Your task to perform on an android device: Clear the cart on walmart.com. Add "asus rog" to the cart on walmart.com, then select checkout. Image 0: 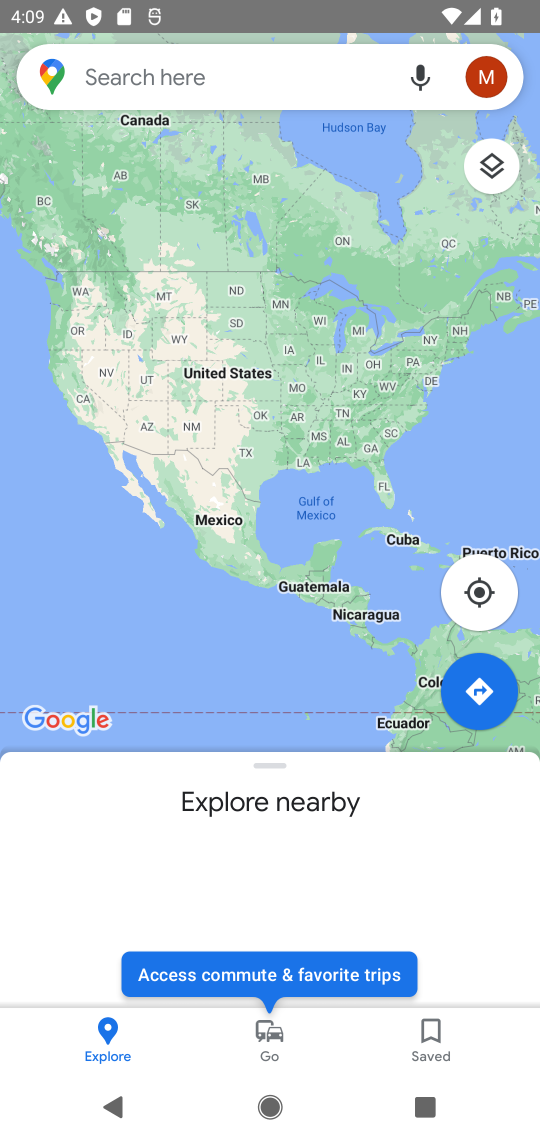
Step 0: press home button
Your task to perform on an android device: Clear the cart on walmart.com. Add "asus rog" to the cart on walmart.com, then select checkout. Image 1: 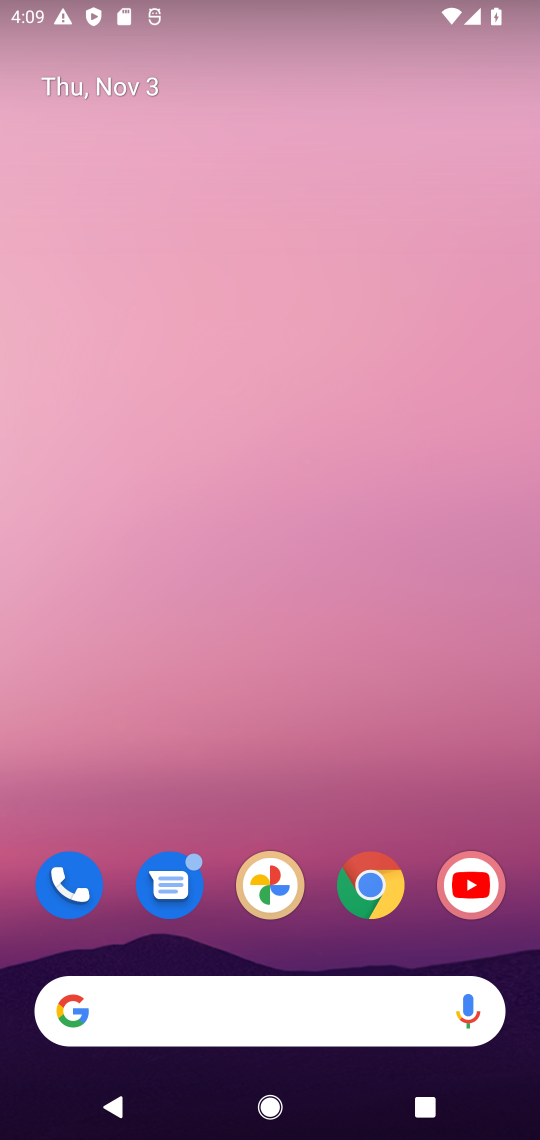
Step 1: click (382, 876)
Your task to perform on an android device: Clear the cart on walmart.com. Add "asus rog" to the cart on walmart.com, then select checkout. Image 2: 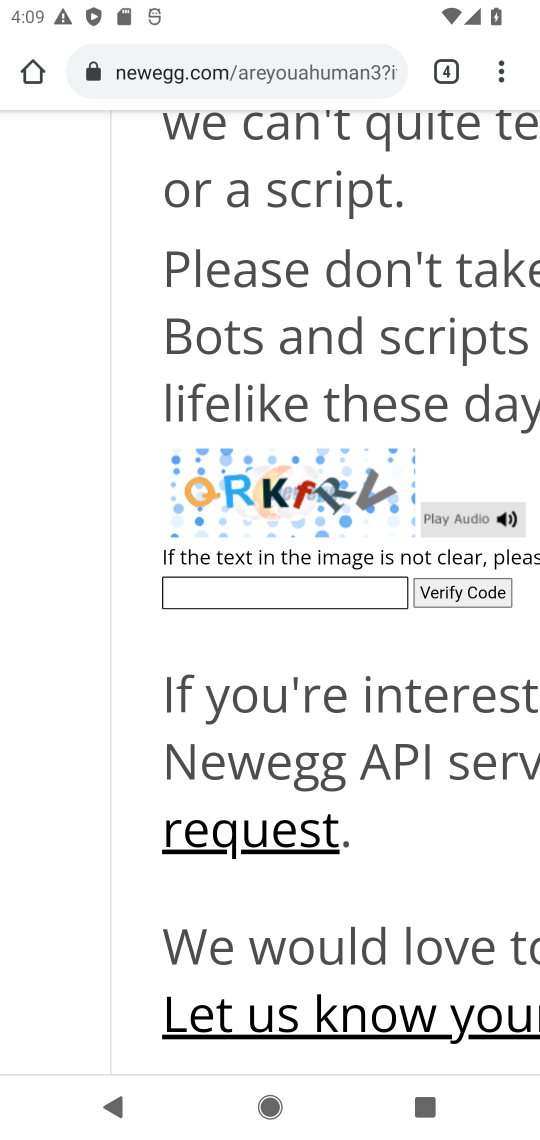
Step 2: click (450, 66)
Your task to perform on an android device: Clear the cart on walmart.com. Add "asus rog" to the cart on walmart.com, then select checkout. Image 3: 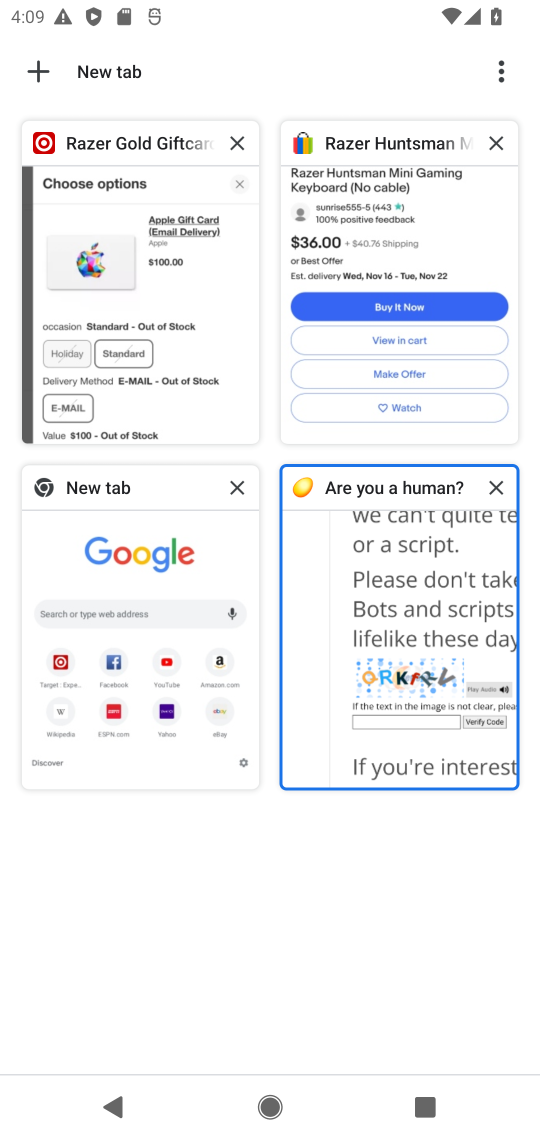
Step 3: click (158, 712)
Your task to perform on an android device: Clear the cart on walmart.com. Add "asus rog" to the cart on walmart.com, then select checkout. Image 4: 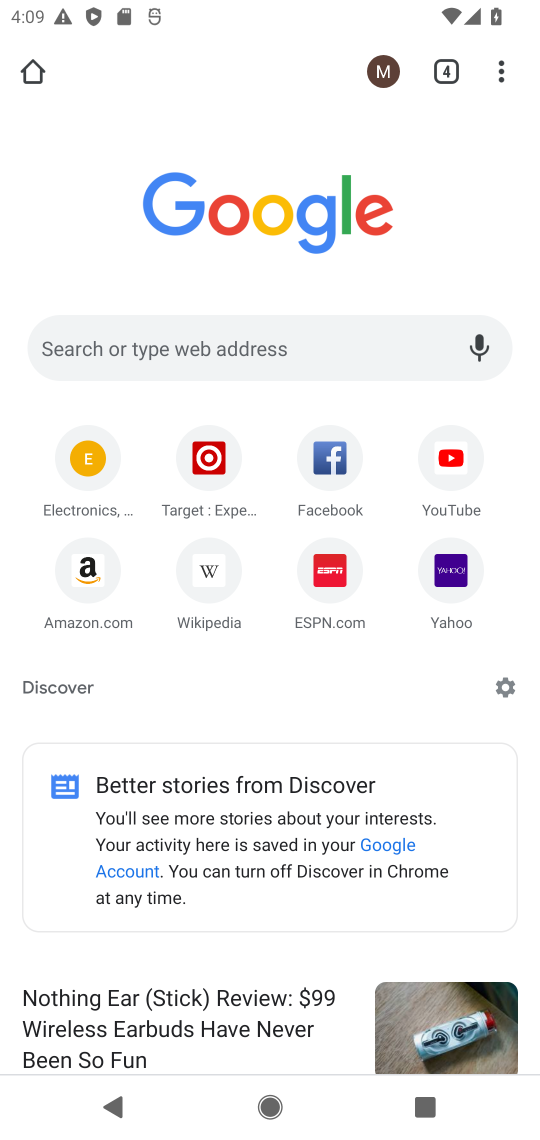
Step 4: click (287, 348)
Your task to perform on an android device: Clear the cart on walmart.com. Add "asus rog" to the cart on walmart.com, then select checkout. Image 5: 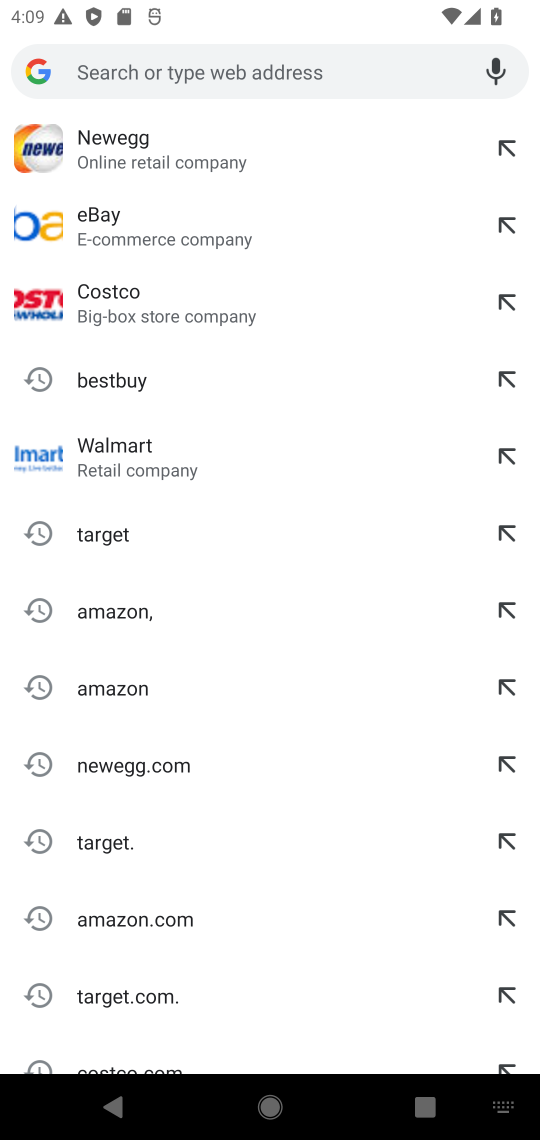
Step 5: type "walmart"
Your task to perform on an android device: Clear the cart on walmart.com. Add "asus rog" to the cart on walmart.com, then select checkout. Image 6: 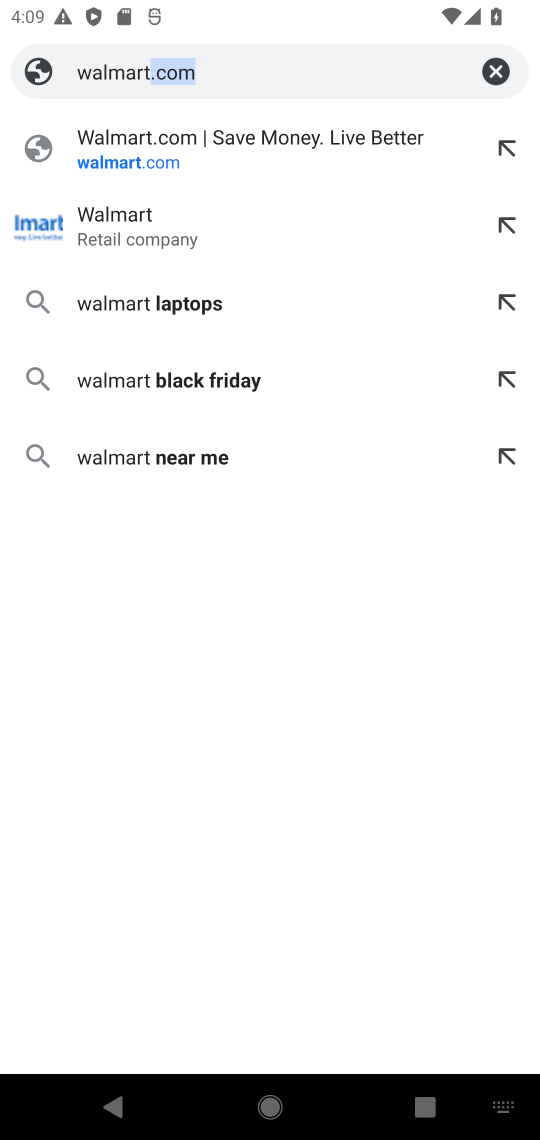
Step 6: click (72, 149)
Your task to perform on an android device: Clear the cart on walmart.com. Add "asus rog" to the cart on walmart.com, then select checkout. Image 7: 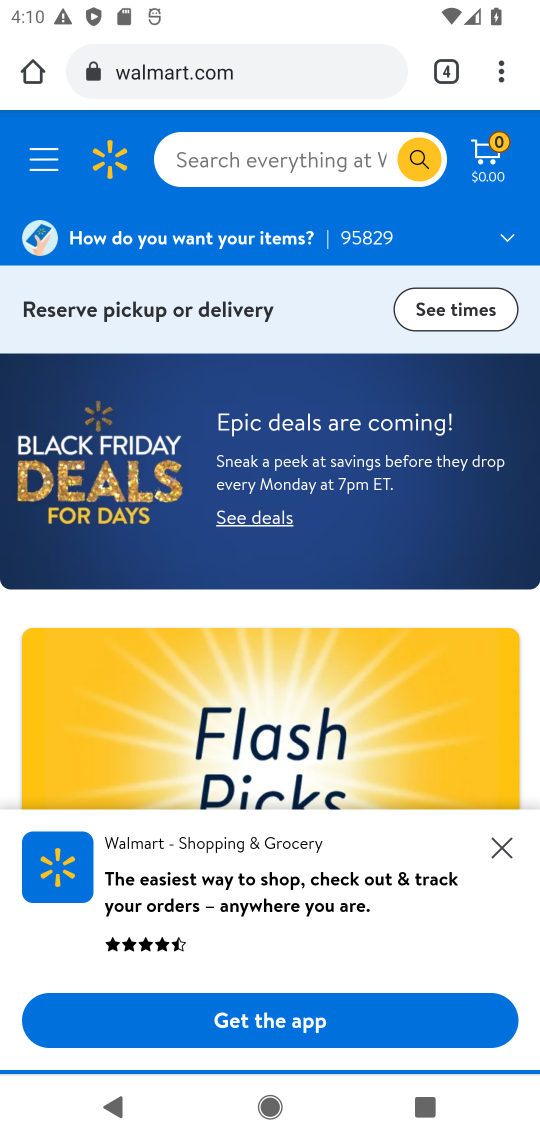
Step 7: click (291, 155)
Your task to perform on an android device: Clear the cart on walmart.com. Add "asus rog" to the cart on walmart.com, then select checkout. Image 8: 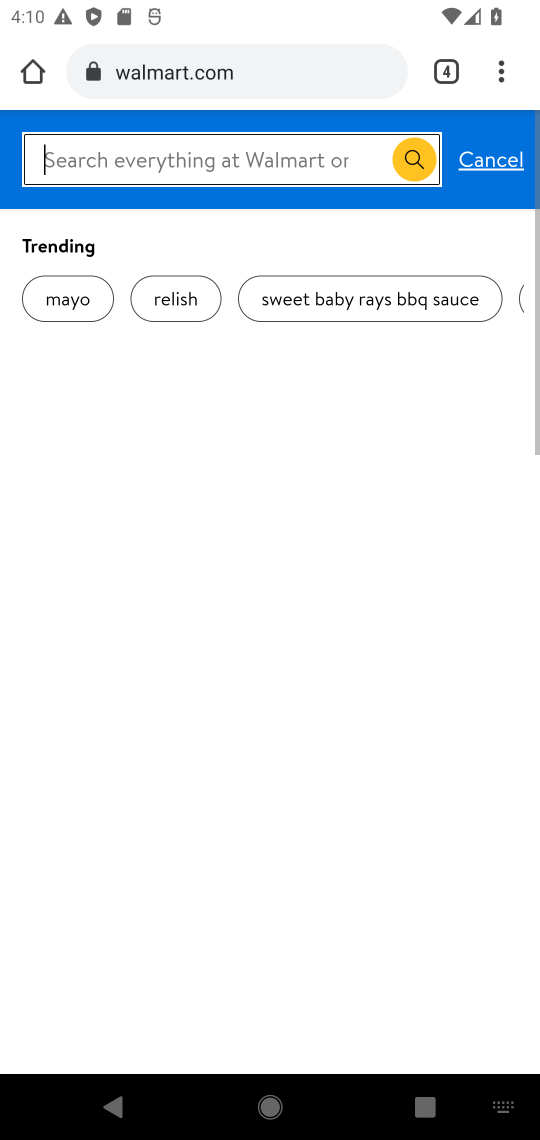
Step 8: type "asus rog"
Your task to perform on an android device: Clear the cart on walmart.com. Add "asus rog" to the cart on walmart.com, then select checkout. Image 9: 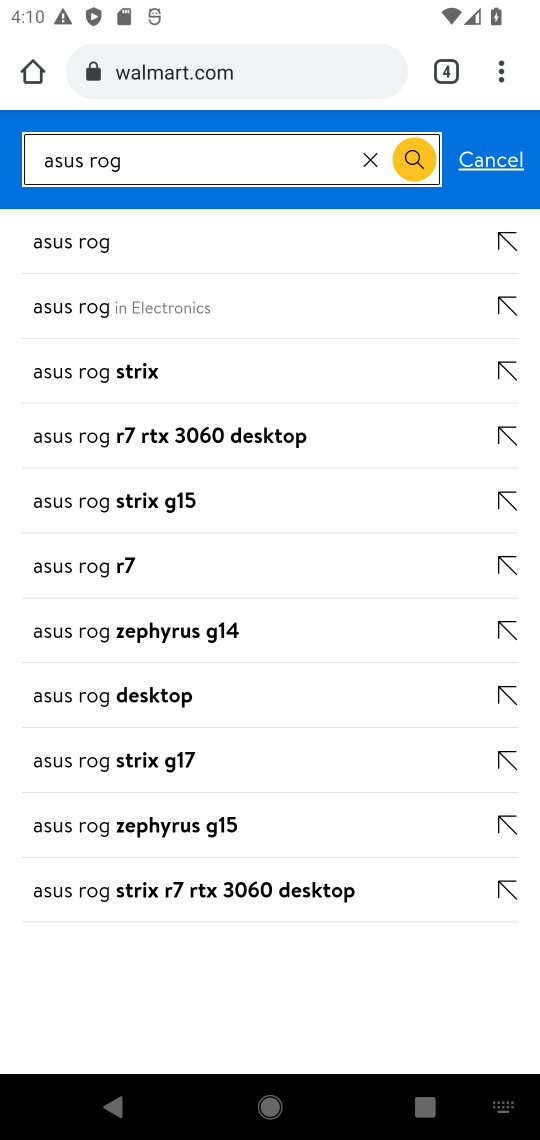
Step 9: click (40, 301)
Your task to perform on an android device: Clear the cart on walmart.com. Add "asus rog" to the cart on walmart.com, then select checkout. Image 10: 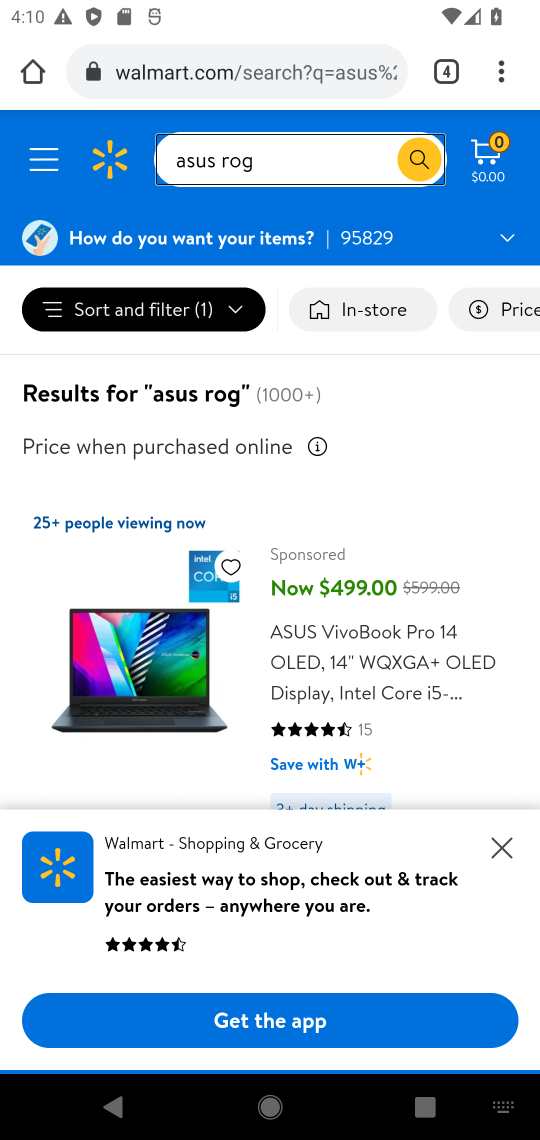
Step 10: click (496, 835)
Your task to perform on an android device: Clear the cart on walmart.com. Add "asus rog" to the cart on walmart.com, then select checkout. Image 11: 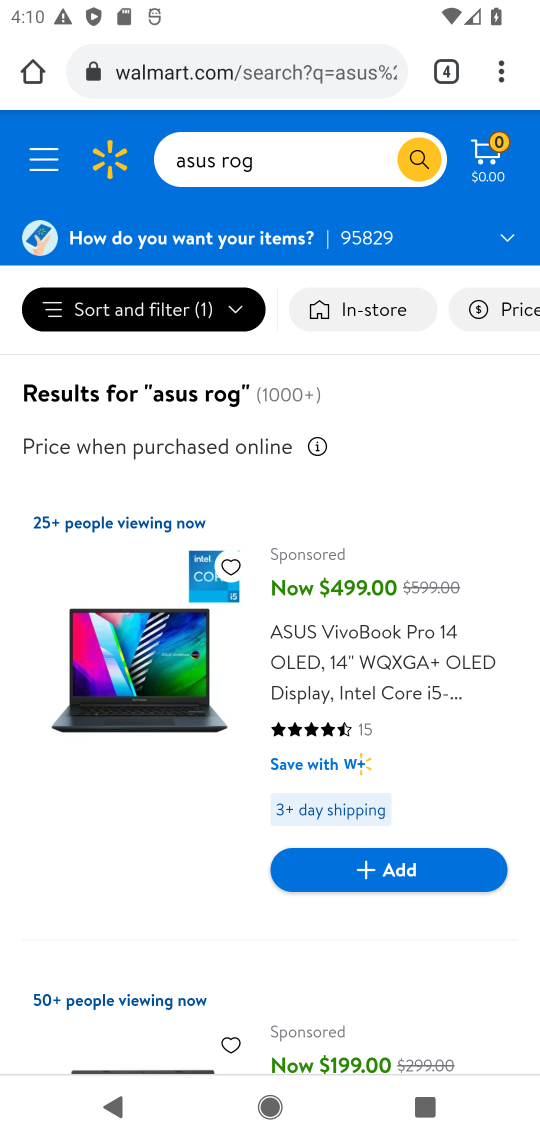
Step 11: click (411, 872)
Your task to perform on an android device: Clear the cart on walmart.com. Add "asus rog" to the cart on walmart.com, then select checkout. Image 12: 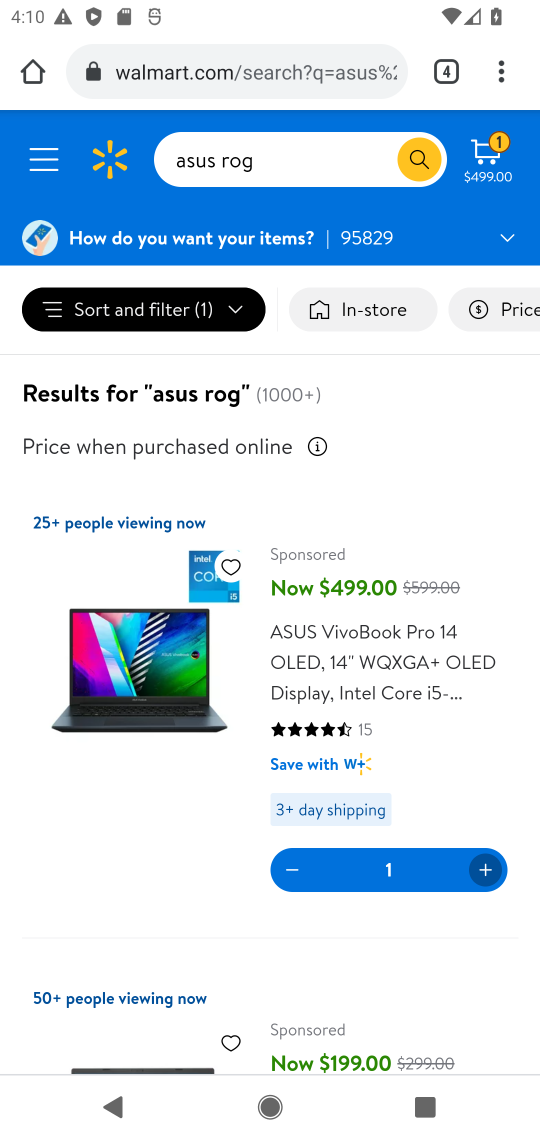
Step 12: task complete